Your task to perform on an android device: Open calendar and show me the second week of next month Image 0: 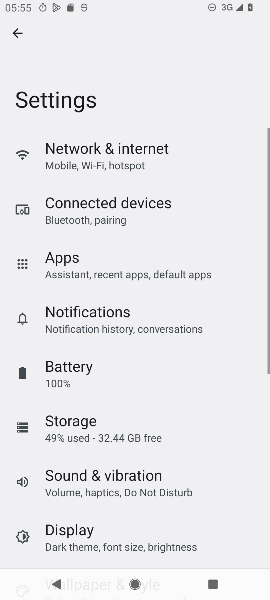
Step 0: press home button
Your task to perform on an android device: Open calendar and show me the second week of next month Image 1: 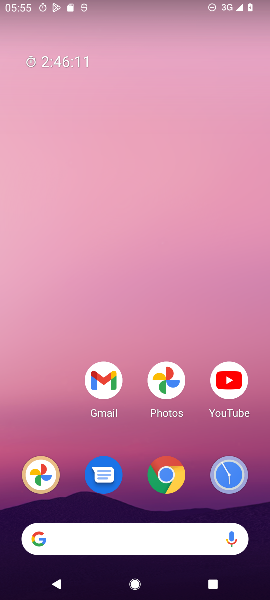
Step 1: drag from (59, 424) to (57, 181)
Your task to perform on an android device: Open calendar and show me the second week of next month Image 2: 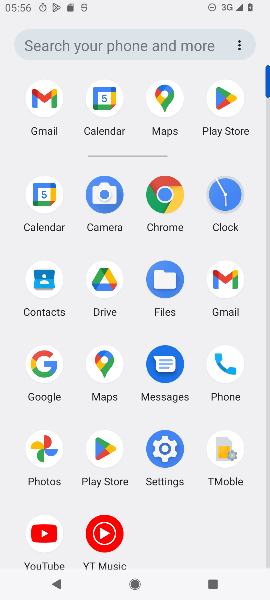
Step 2: click (44, 197)
Your task to perform on an android device: Open calendar and show me the second week of next month Image 3: 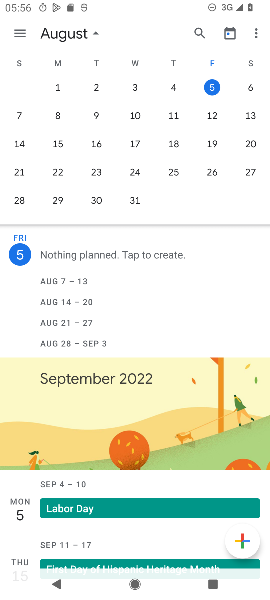
Step 3: drag from (263, 100) to (71, 102)
Your task to perform on an android device: Open calendar and show me the second week of next month Image 4: 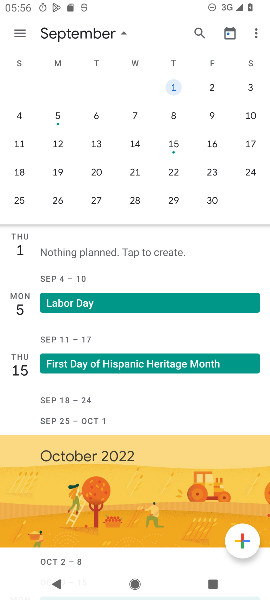
Step 4: click (58, 115)
Your task to perform on an android device: Open calendar and show me the second week of next month Image 5: 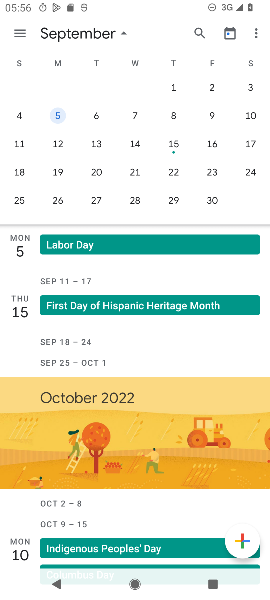
Step 5: task complete